Your task to perform on an android device: Clear all items from cart on costco. Image 0: 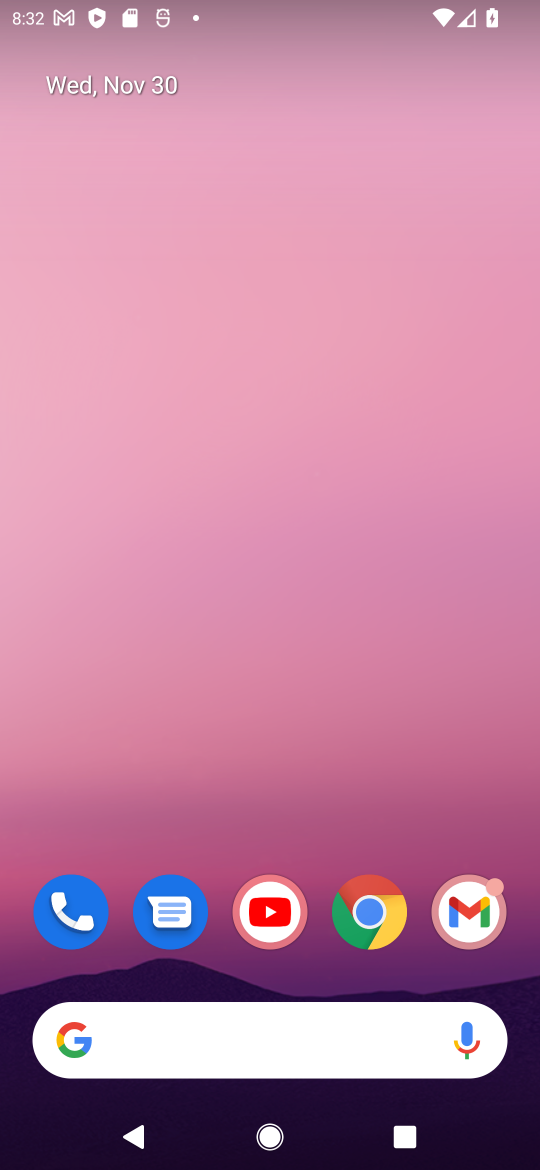
Step 0: click (234, 1042)
Your task to perform on an android device: Clear all items from cart on costco. Image 1: 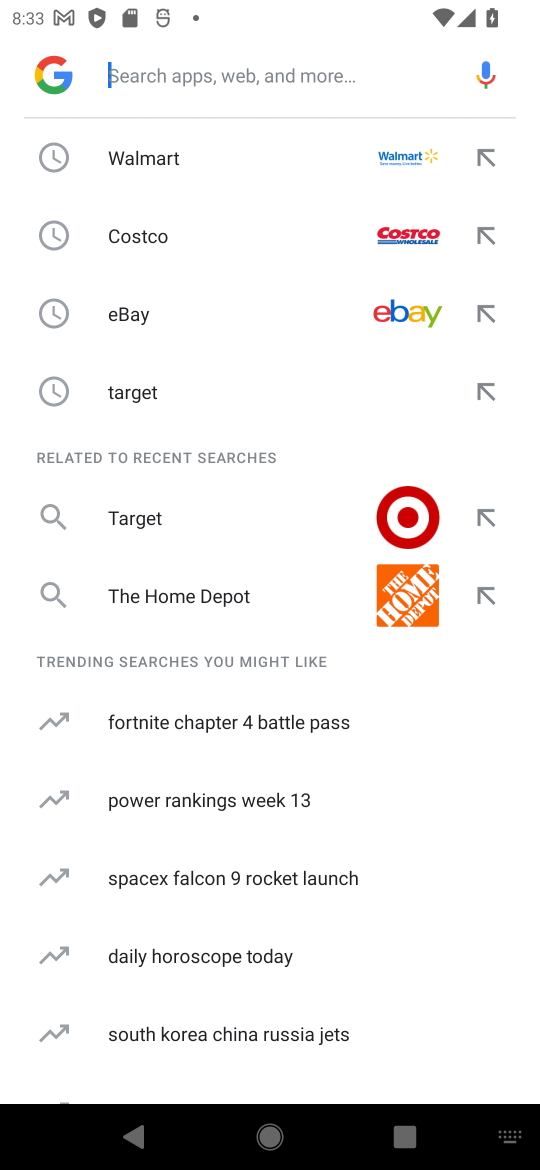
Step 1: click (158, 230)
Your task to perform on an android device: Clear all items from cart on costco. Image 2: 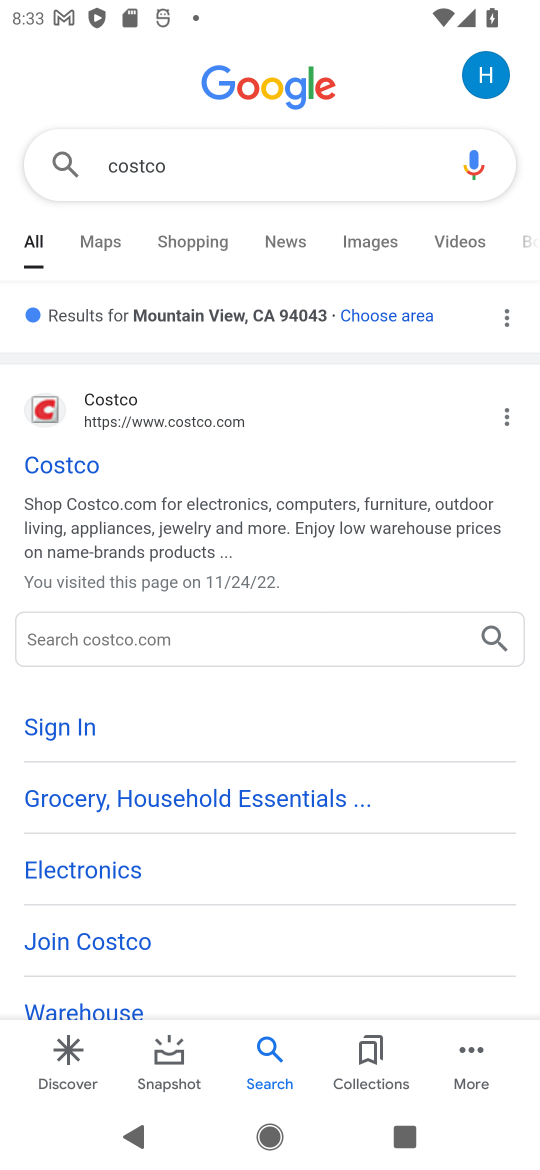
Step 2: click (49, 469)
Your task to perform on an android device: Clear all items from cart on costco. Image 3: 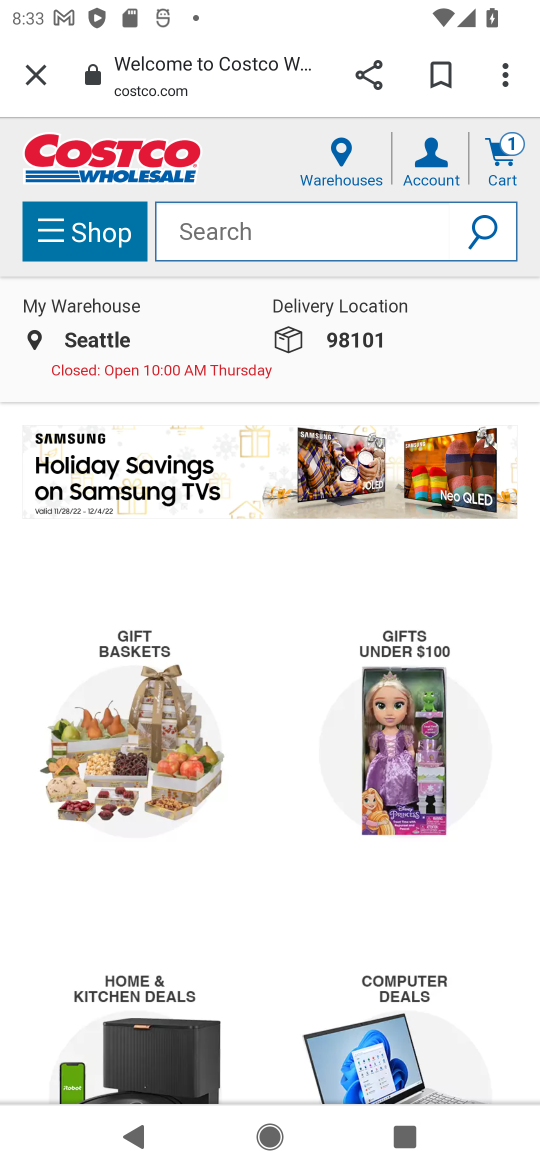
Step 3: click (508, 150)
Your task to perform on an android device: Clear all items from cart on costco. Image 4: 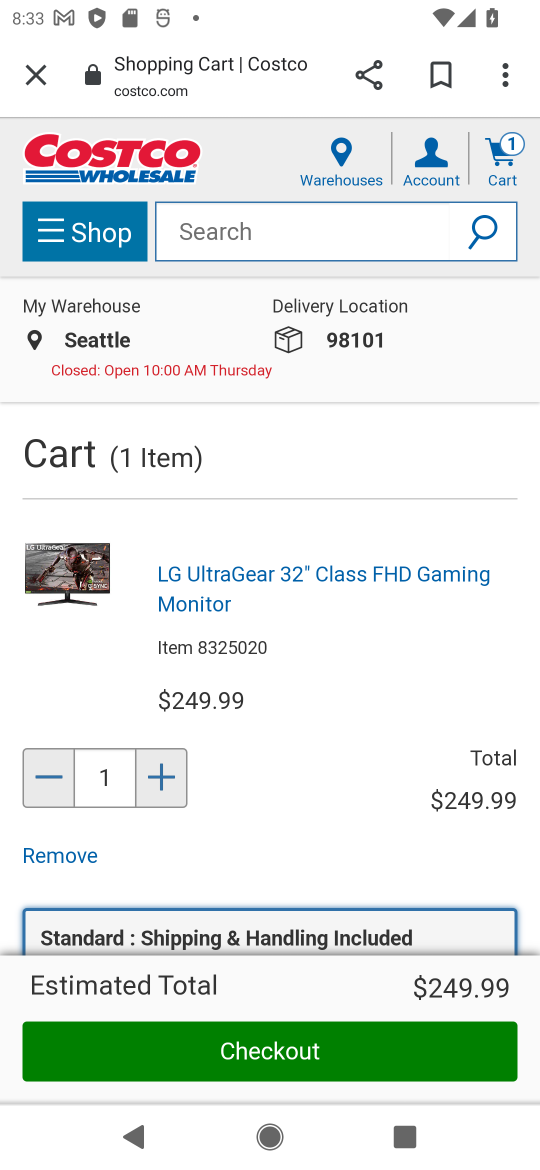
Step 4: click (53, 855)
Your task to perform on an android device: Clear all items from cart on costco. Image 5: 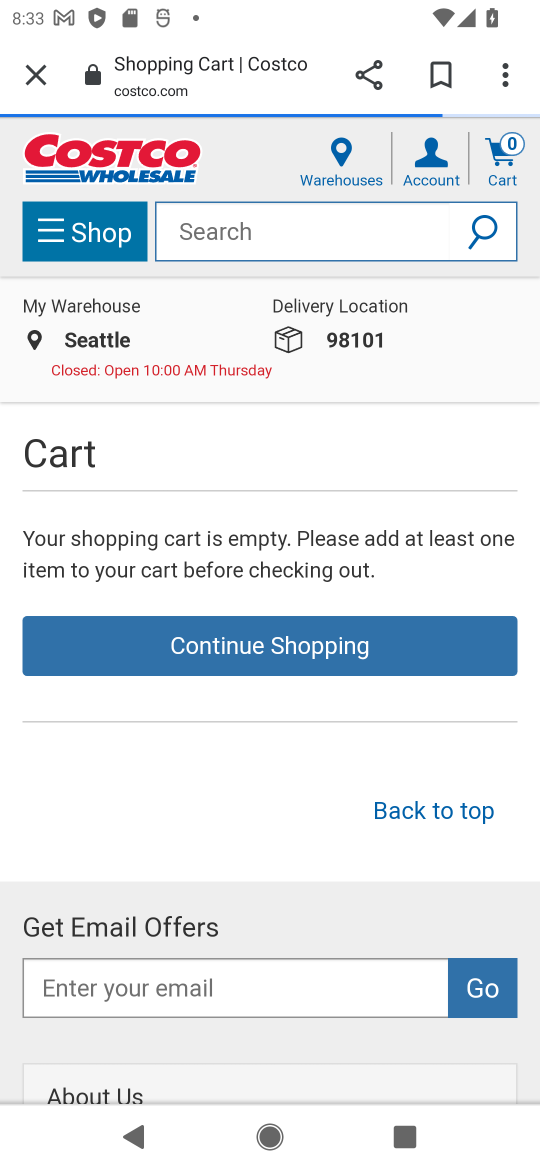
Step 5: click (71, 855)
Your task to perform on an android device: Clear all items from cart on costco. Image 6: 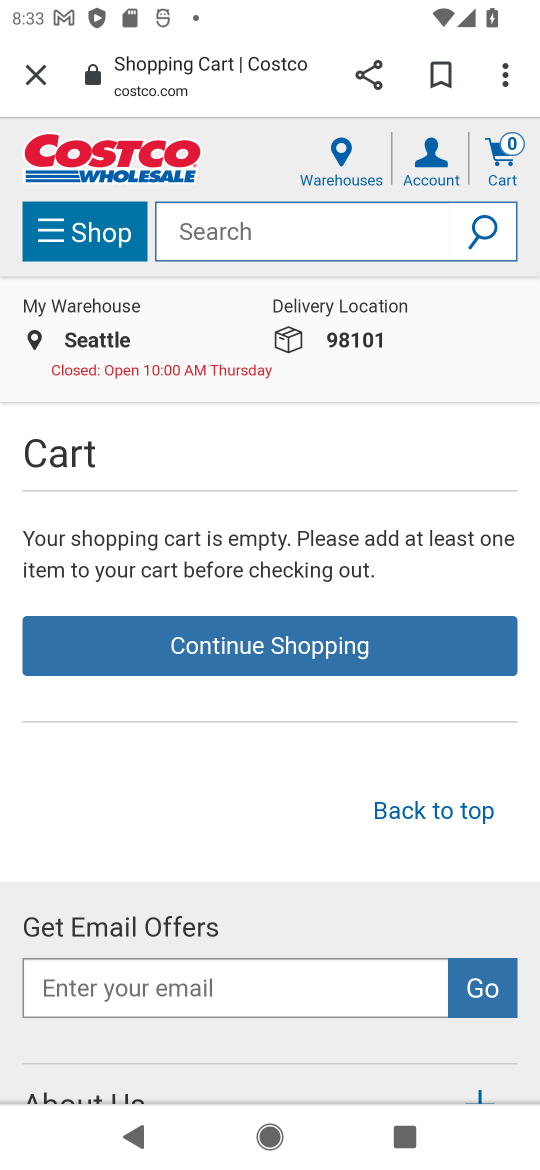
Step 6: task complete